Your task to perform on an android device: check storage Image 0: 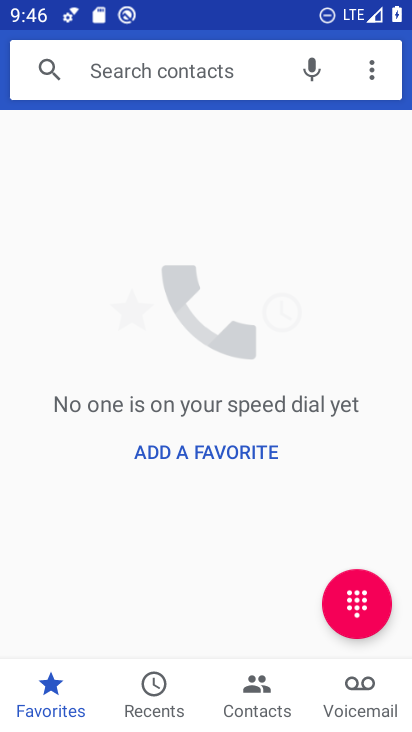
Step 0: press home button
Your task to perform on an android device: check storage Image 1: 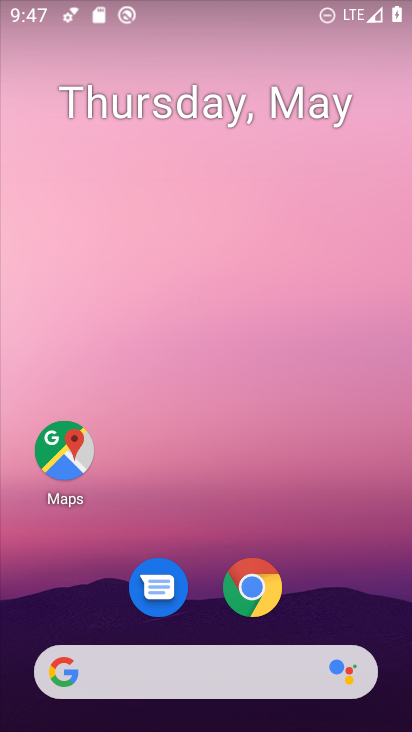
Step 1: drag from (349, 601) to (364, 31)
Your task to perform on an android device: check storage Image 2: 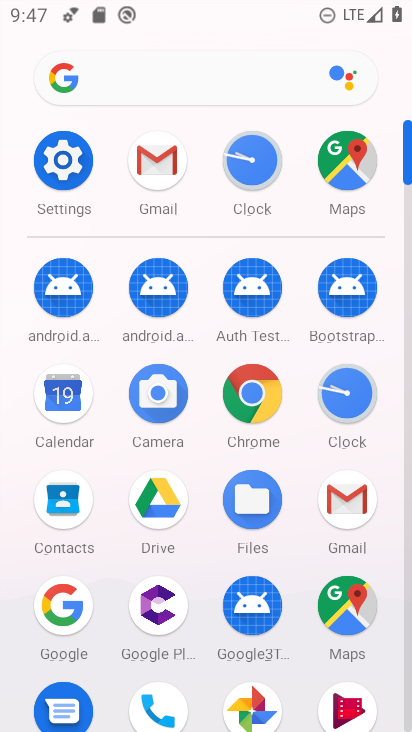
Step 2: click (55, 164)
Your task to perform on an android device: check storage Image 3: 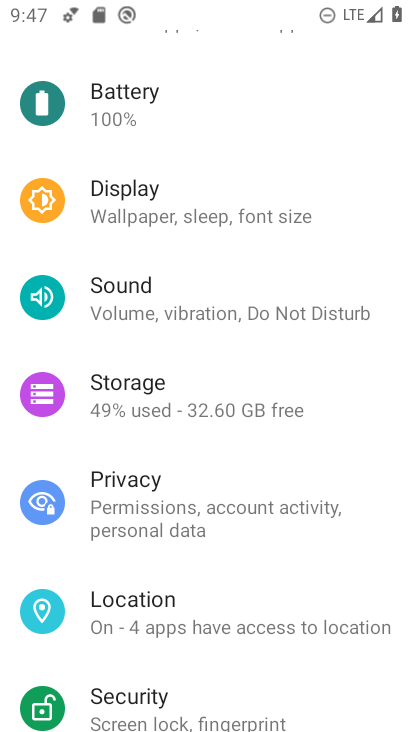
Step 3: click (113, 394)
Your task to perform on an android device: check storage Image 4: 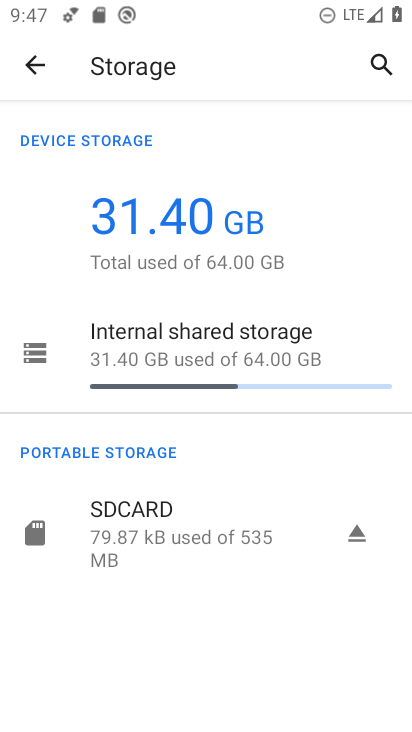
Step 4: click (180, 320)
Your task to perform on an android device: check storage Image 5: 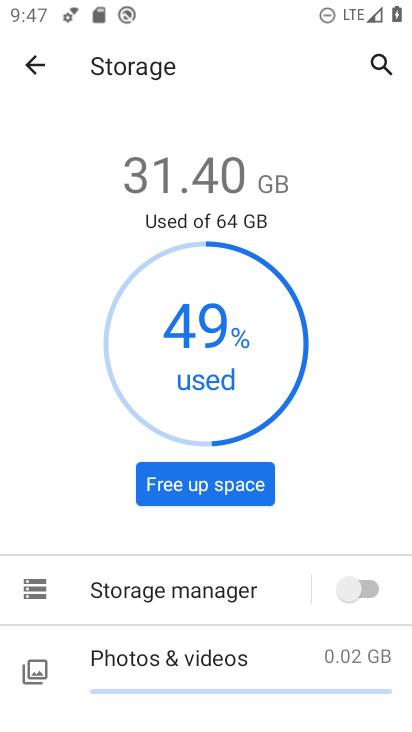
Step 5: task complete